Your task to perform on an android device: Open Google Chrome Image 0: 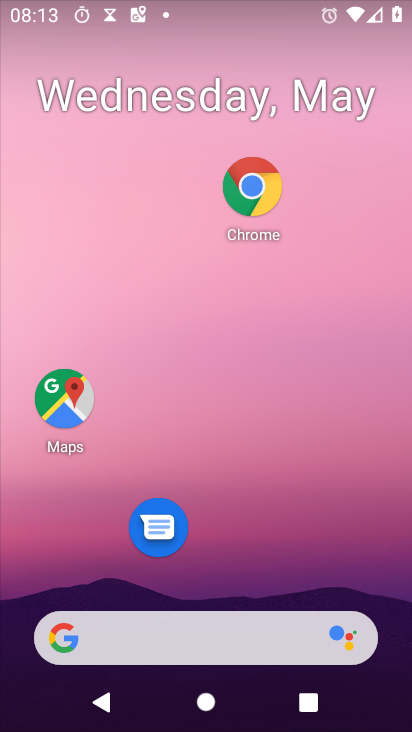
Step 0: click (256, 186)
Your task to perform on an android device: Open Google Chrome Image 1: 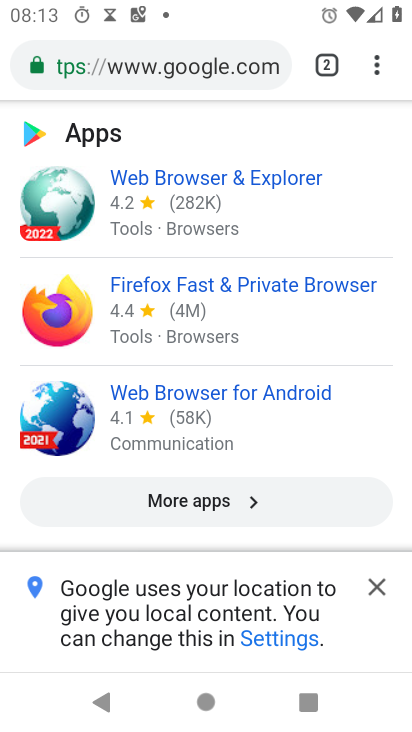
Step 1: task complete